Your task to perform on an android device: Look up the best rated headphones on Walmart. Image 0: 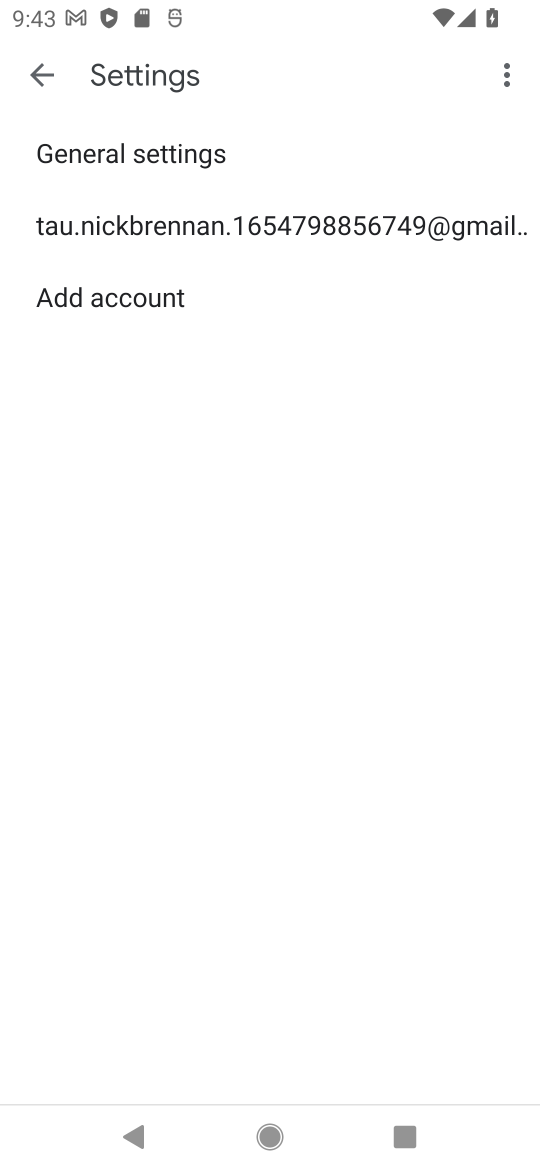
Step 0: press home button
Your task to perform on an android device: Look up the best rated headphones on Walmart. Image 1: 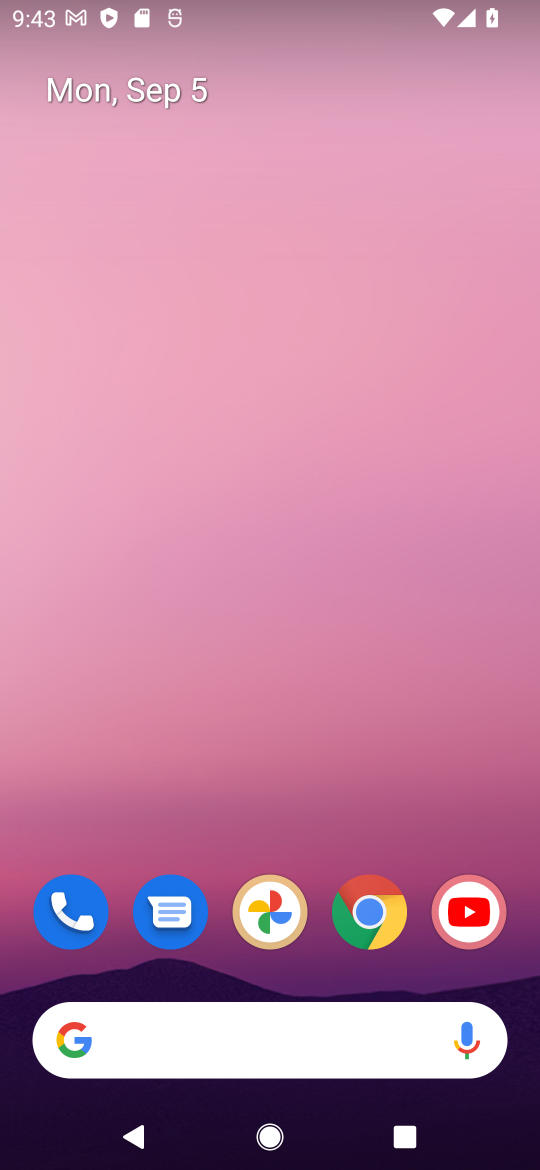
Step 1: click (385, 904)
Your task to perform on an android device: Look up the best rated headphones on Walmart. Image 2: 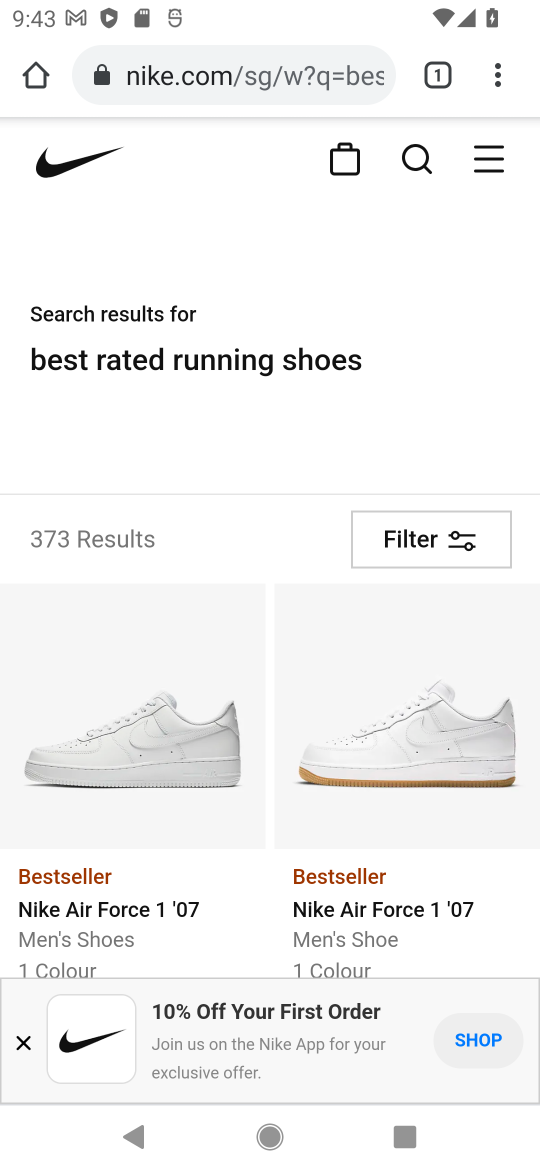
Step 2: click (244, 88)
Your task to perform on an android device: Look up the best rated headphones on Walmart. Image 3: 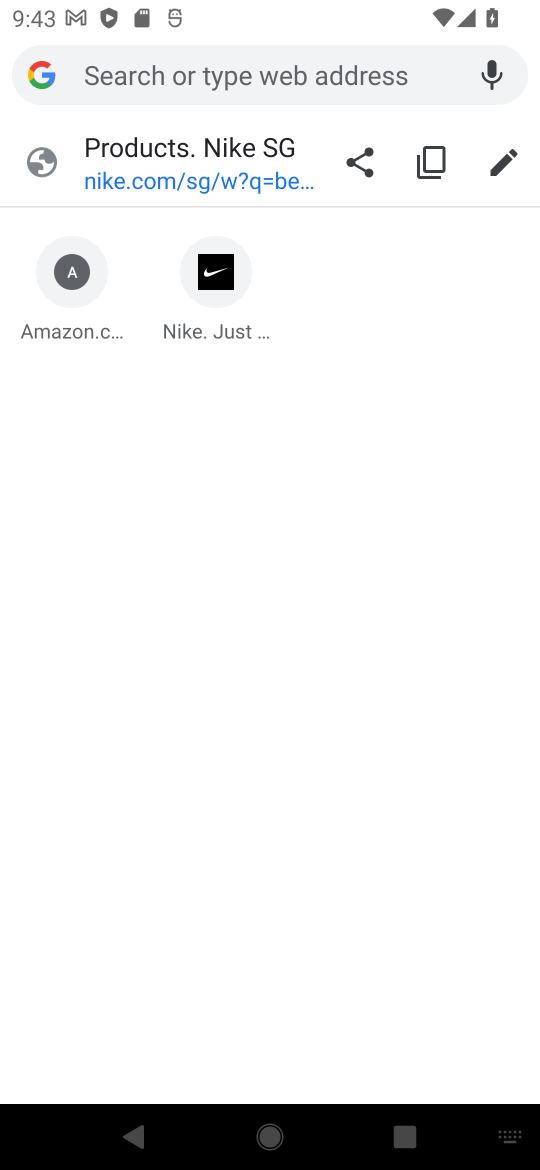
Step 3: type "walmart.com"
Your task to perform on an android device: Look up the best rated headphones on Walmart. Image 4: 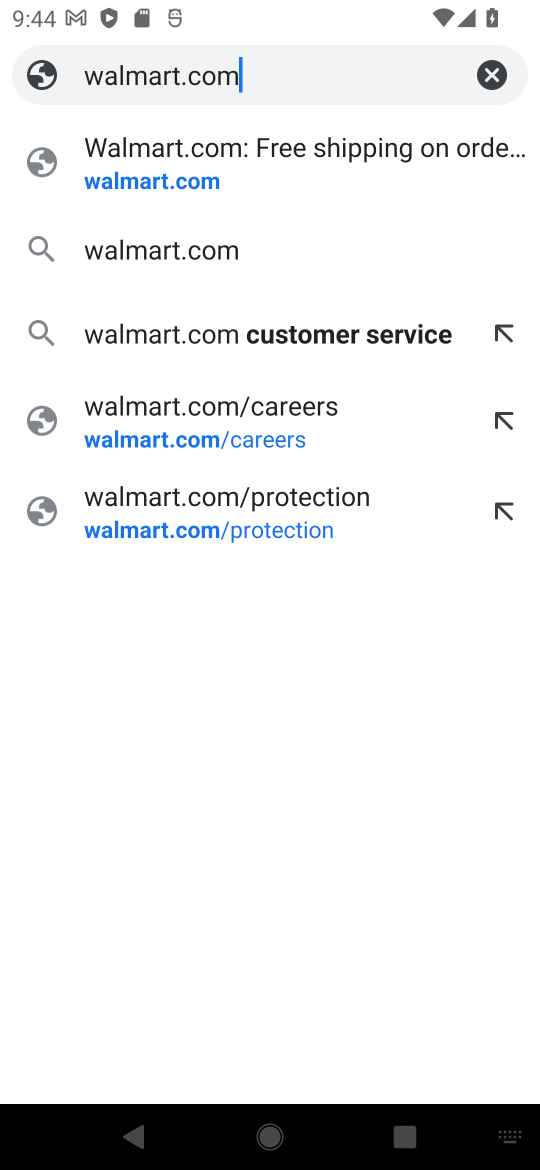
Step 4: click (128, 186)
Your task to perform on an android device: Look up the best rated headphones on Walmart. Image 5: 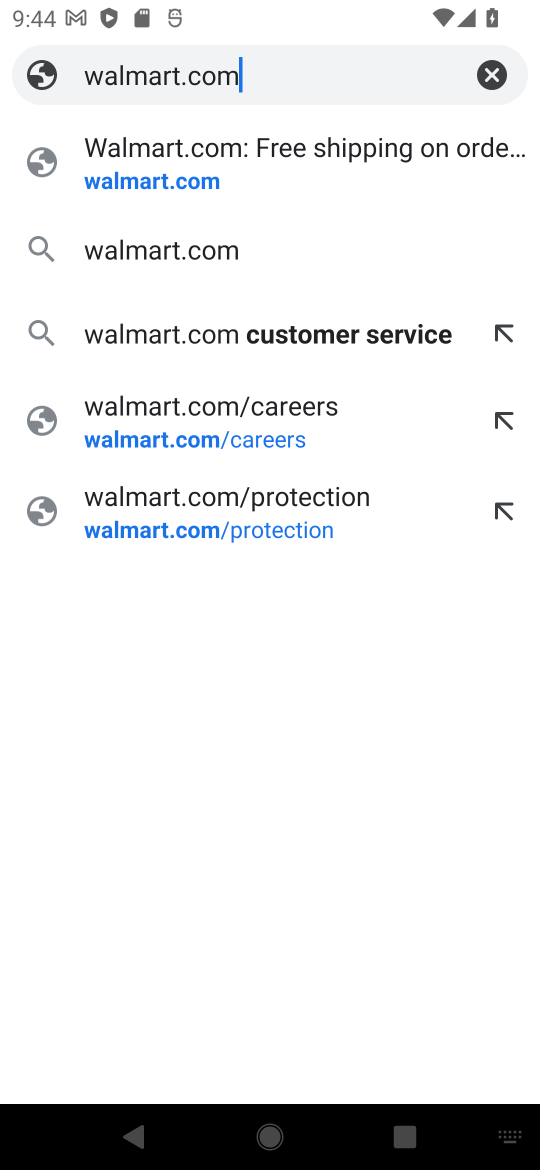
Step 5: click (130, 183)
Your task to perform on an android device: Look up the best rated headphones on Walmart. Image 6: 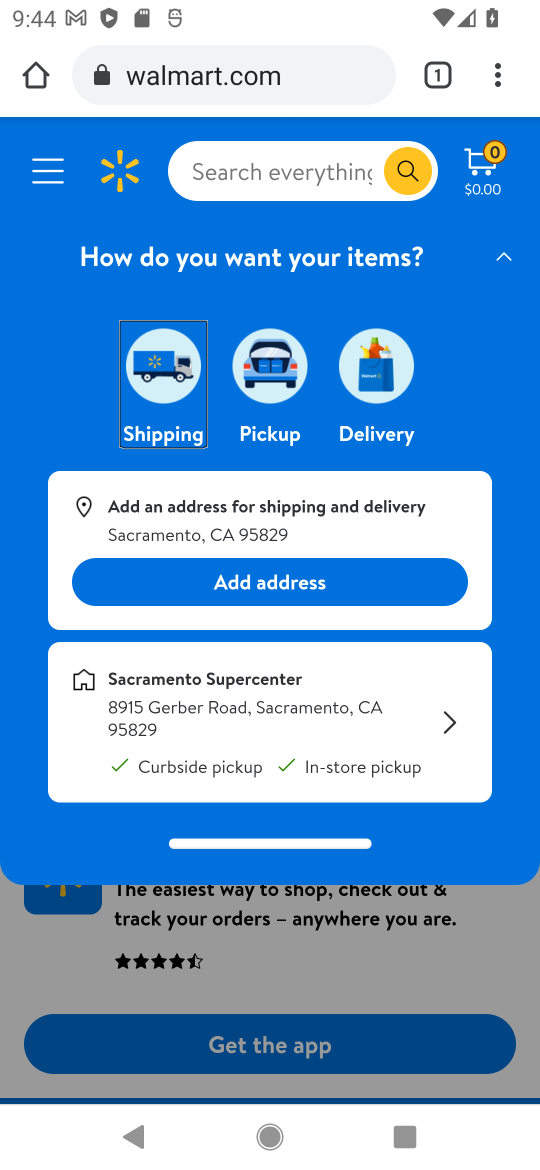
Step 6: click (280, 176)
Your task to perform on an android device: Look up the best rated headphones on Walmart. Image 7: 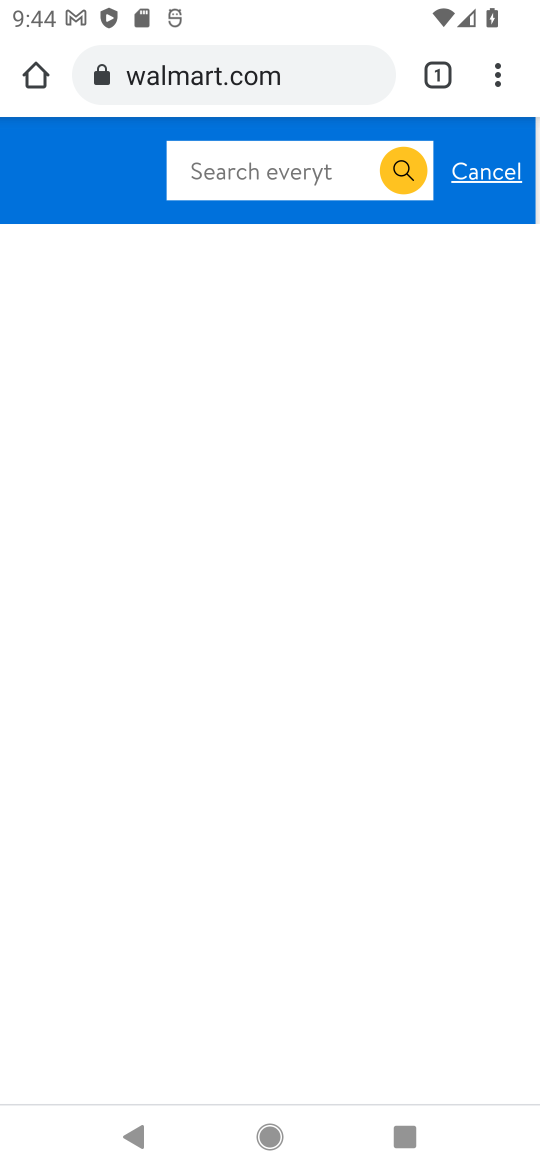
Step 7: click (236, 160)
Your task to perform on an android device: Look up the best rated headphones on Walmart. Image 8: 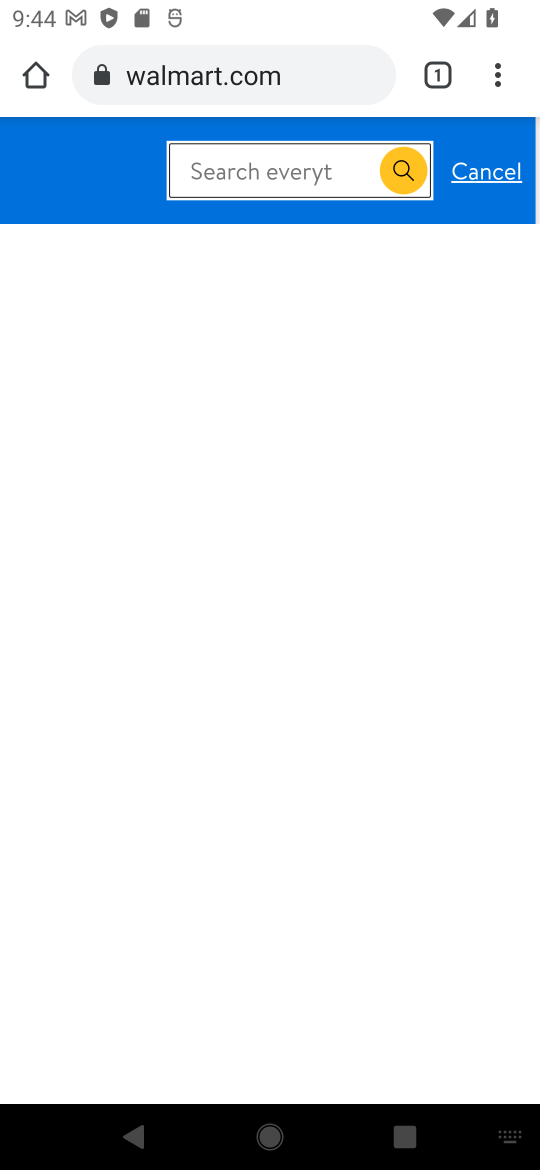
Step 8: type "best rated headphones"
Your task to perform on an android device: Look up the best rated headphones on Walmart. Image 9: 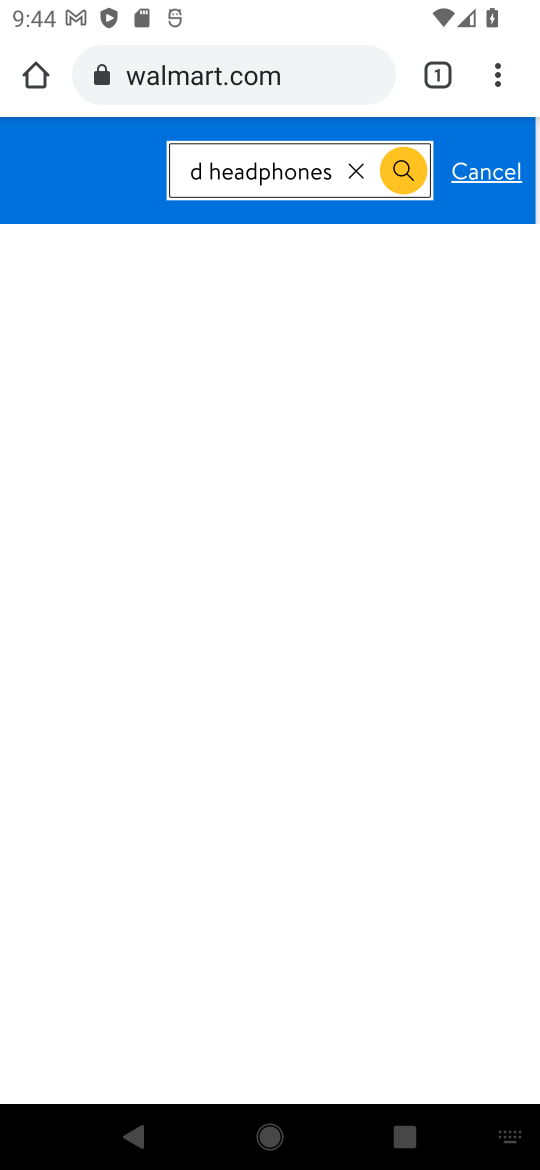
Step 9: click (398, 177)
Your task to perform on an android device: Look up the best rated headphones on Walmart. Image 10: 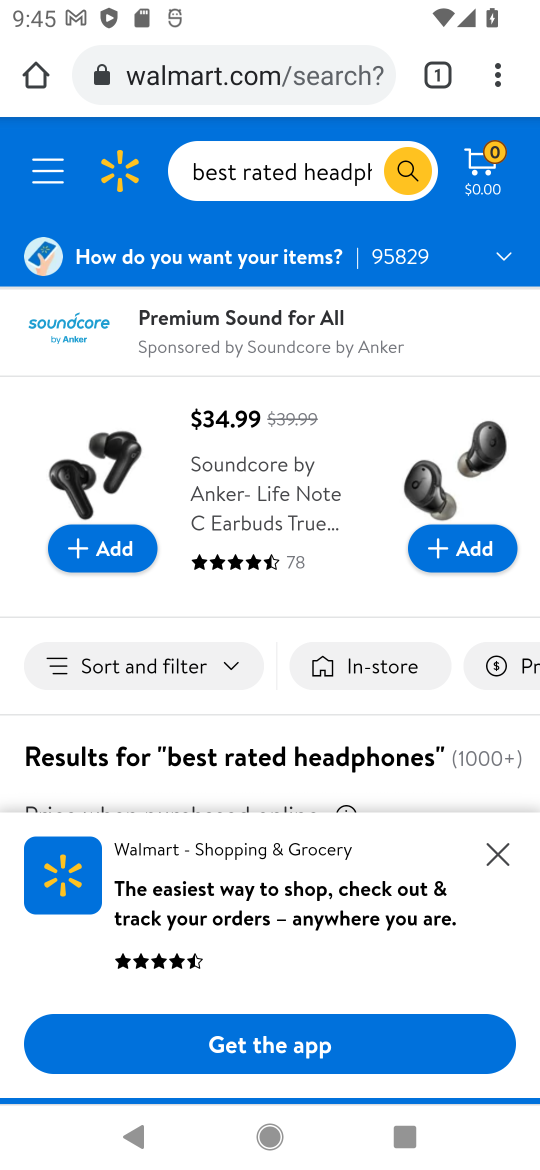
Step 10: task complete